Your task to perform on an android device: toggle airplane mode Image 0: 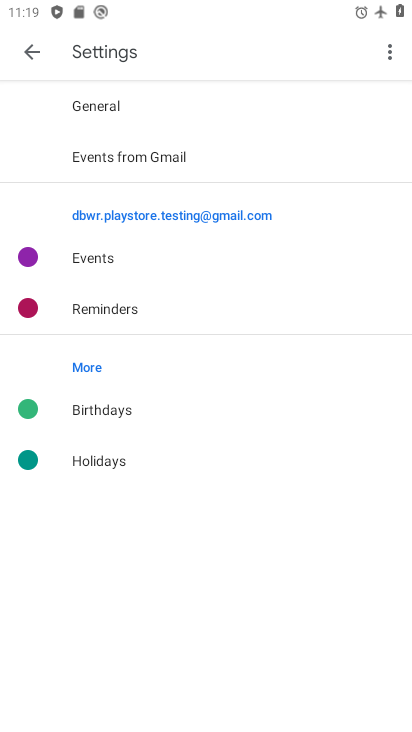
Step 0: press home button
Your task to perform on an android device: toggle airplane mode Image 1: 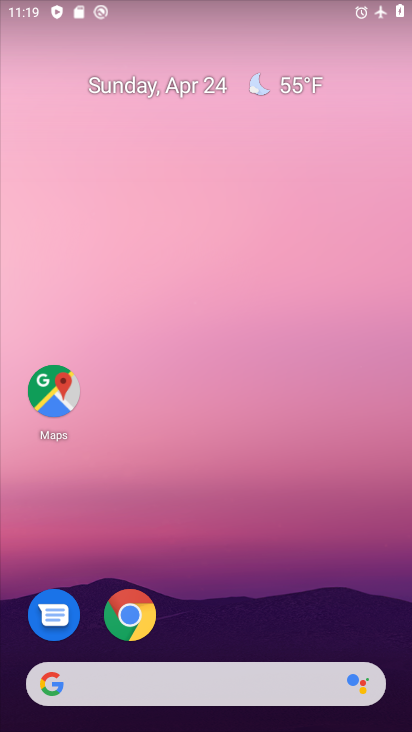
Step 1: drag from (228, 3) to (185, 584)
Your task to perform on an android device: toggle airplane mode Image 2: 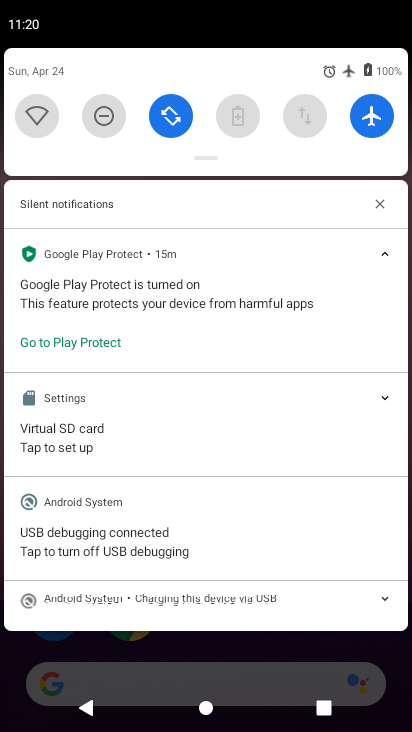
Step 2: click (368, 114)
Your task to perform on an android device: toggle airplane mode Image 3: 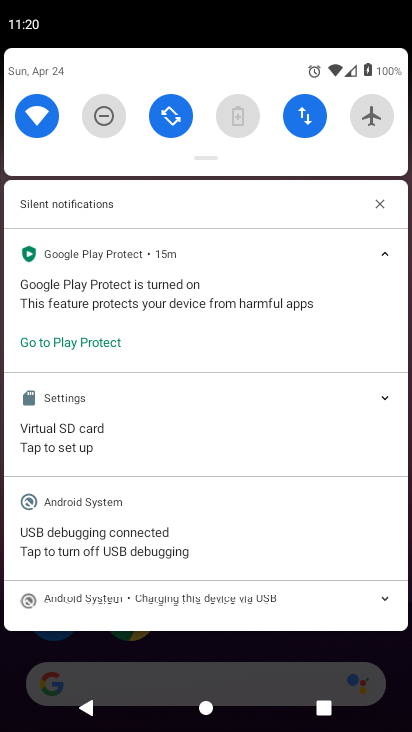
Step 3: task complete